Your task to perform on an android device: Toggle the flashlight Image 0: 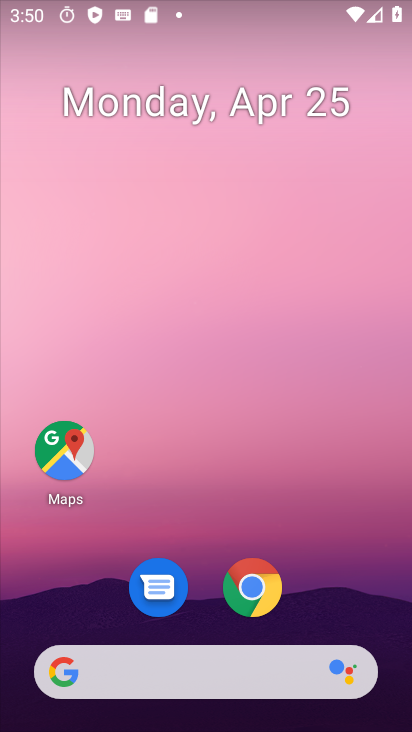
Step 0: click (70, 457)
Your task to perform on an android device: Toggle the flashlight Image 1: 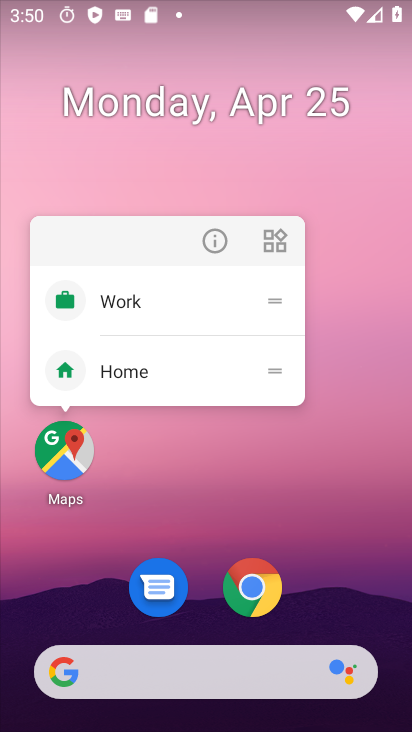
Step 1: task complete